Your task to perform on an android device: Set the phone to "Do not disturb". Image 0: 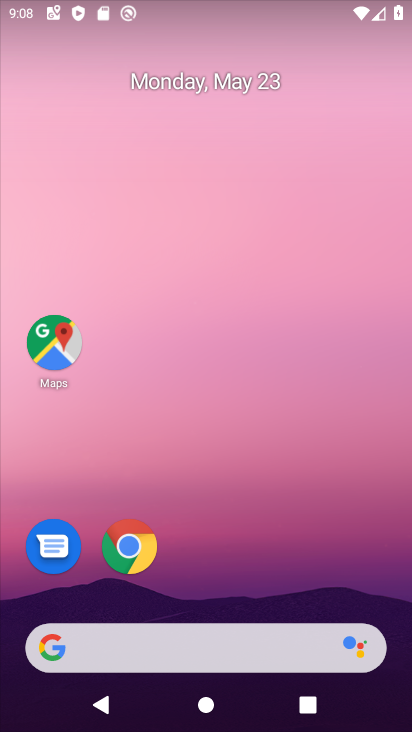
Step 0: drag from (230, 7) to (283, 561)
Your task to perform on an android device: Set the phone to "Do not disturb". Image 1: 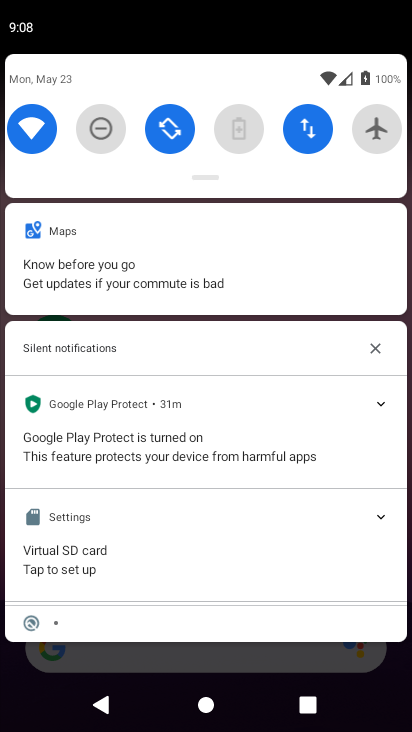
Step 1: click (110, 125)
Your task to perform on an android device: Set the phone to "Do not disturb". Image 2: 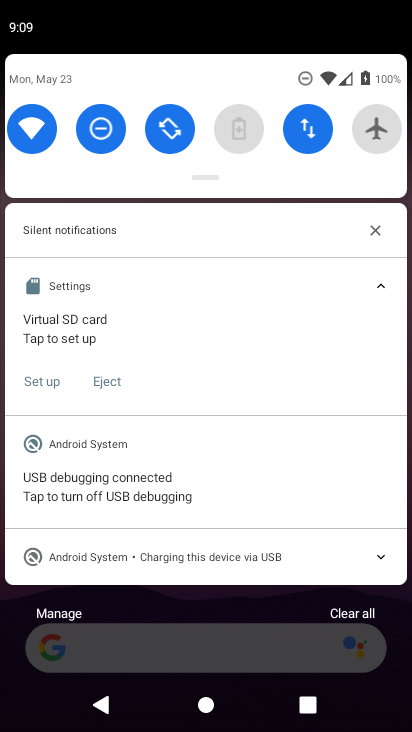
Step 2: task complete